Your task to perform on an android device: Go to location settings Image 0: 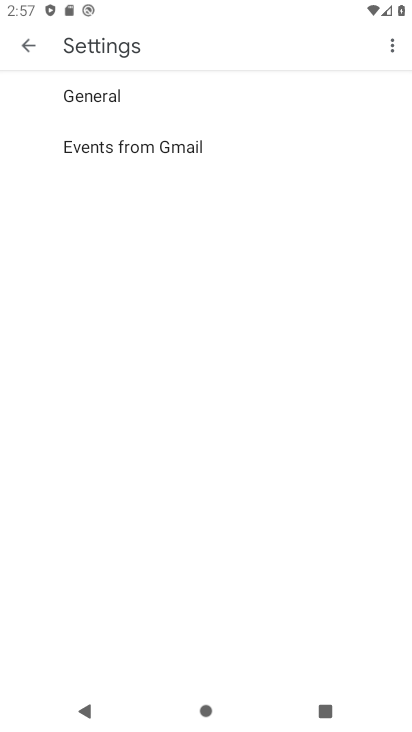
Step 0: press back button
Your task to perform on an android device: Go to location settings Image 1: 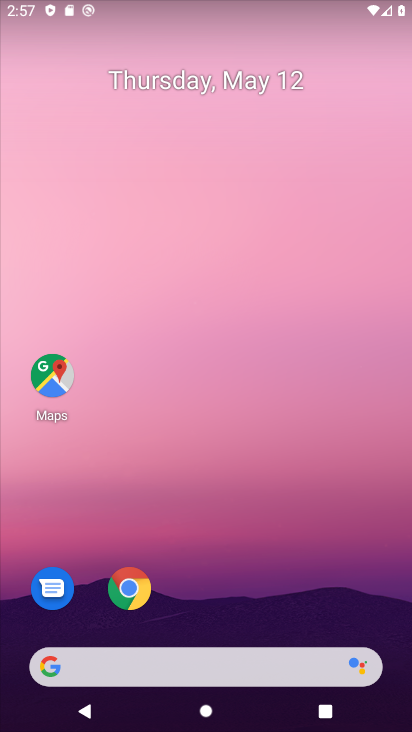
Step 1: drag from (225, 542) to (201, 63)
Your task to perform on an android device: Go to location settings Image 2: 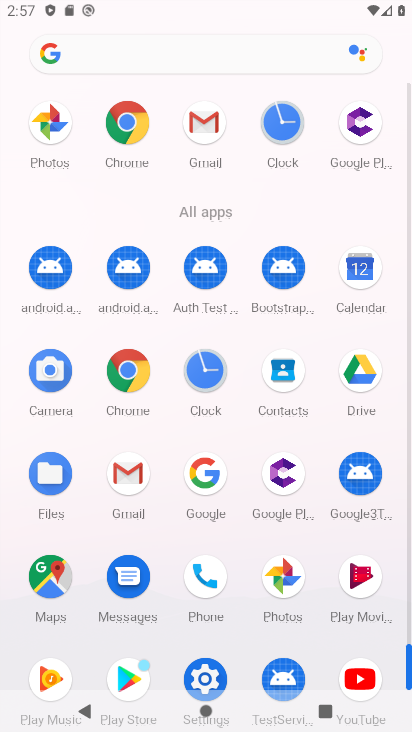
Step 2: click (50, 571)
Your task to perform on an android device: Go to location settings Image 3: 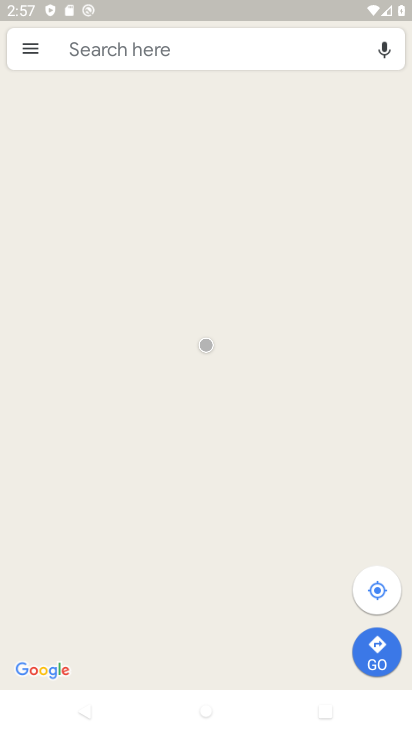
Step 3: click (35, 50)
Your task to perform on an android device: Go to location settings Image 4: 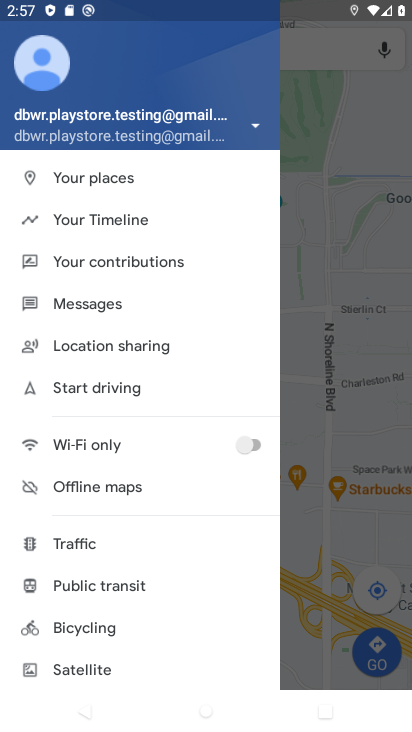
Step 4: drag from (149, 593) to (165, 180)
Your task to perform on an android device: Go to location settings Image 5: 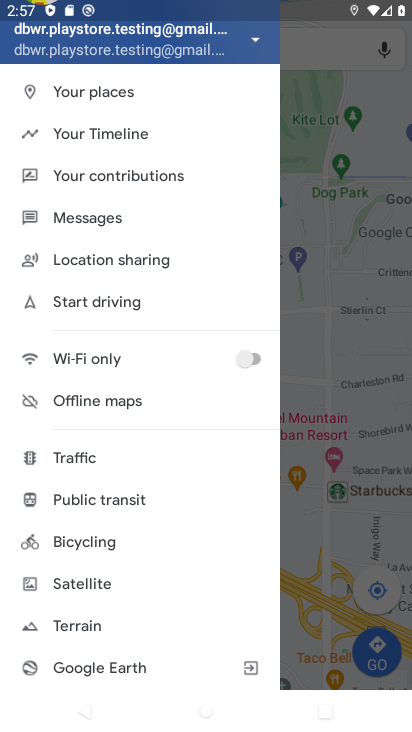
Step 5: drag from (128, 610) to (151, 211)
Your task to perform on an android device: Go to location settings Image 6: 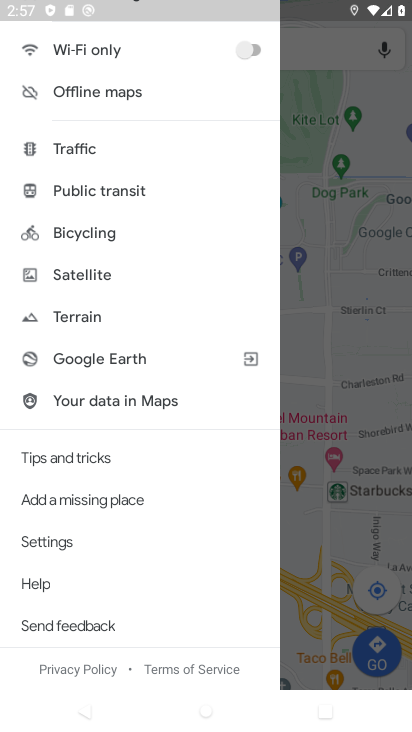
Step 6: click (76, 539)
Your task to perform on an android device: Go to location settings Image 7: 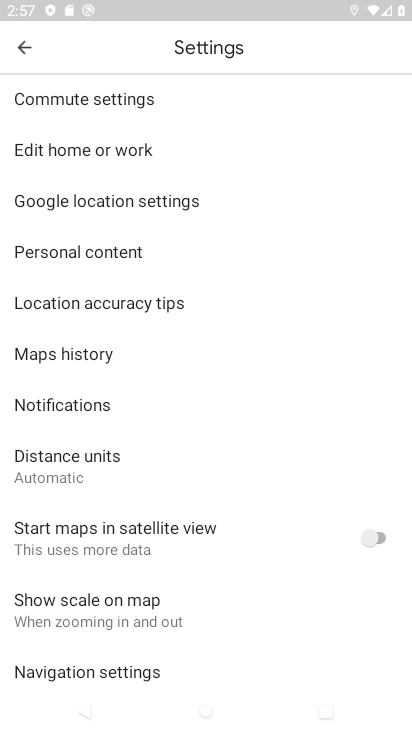
Step 7: task complete